Your task to perform on an android device: turn smart compose on in the gmail app Image 0: 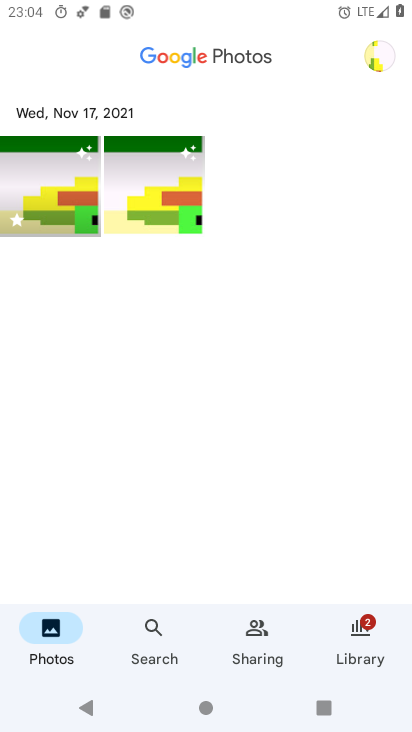
Step 0: drag from (190, 484) to (269, 54)
Your task to perform on an android device: turn smart compose on in the gmail app Image 1: 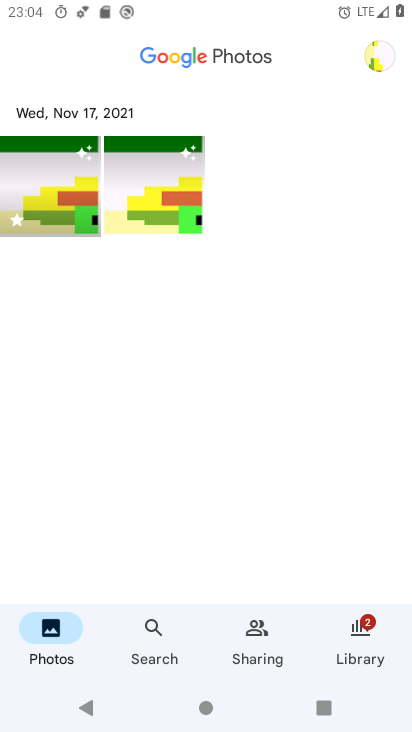
Step 1: drag from (172, 573) to (236, 429)
Your task to perform on an android device: turn smart compose on in the gmail app Image 2: 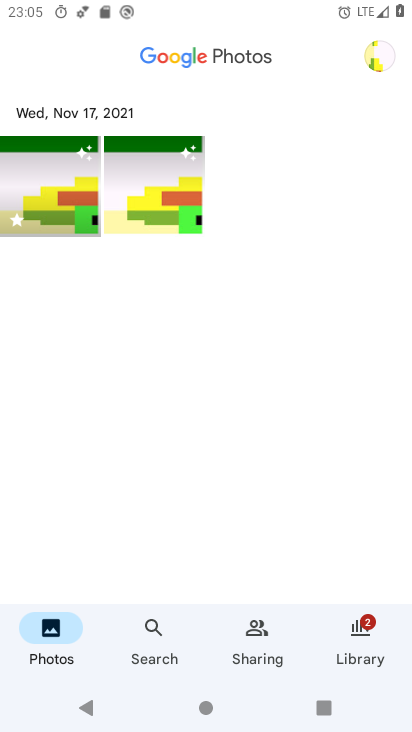
Step 2: drag from (178, 547) to (322, 192)
Your task to perform on an android device: turn smart compose on in the gmail app Image 3: 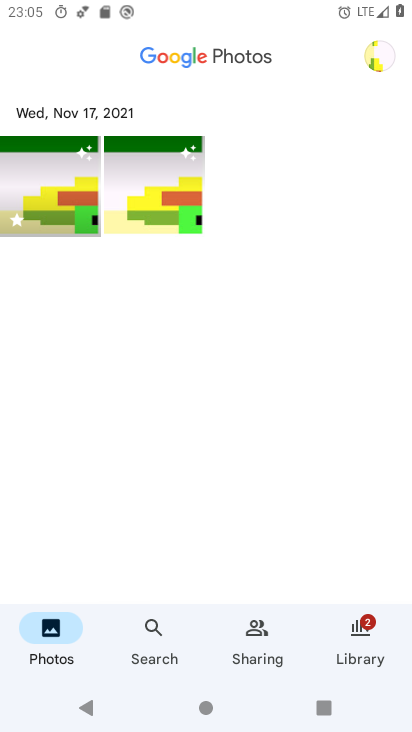
Step 3: drag from (210, 501) to (262, 342)
Your task to perform on an android device: turn smart compose on in the gmail app Image 4: 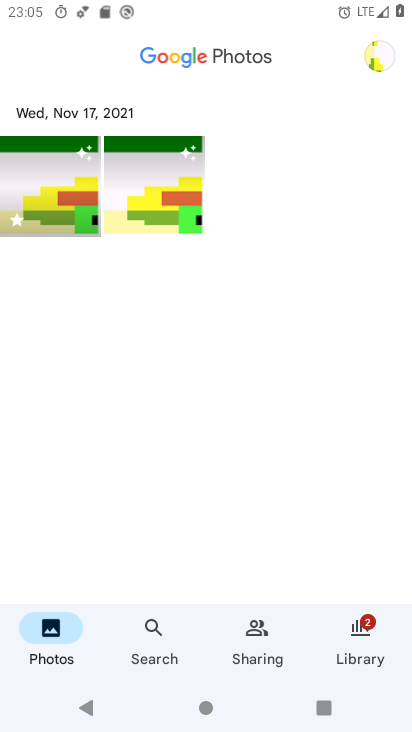
Step 4: drag from (163, 560) to (212, 373)
Your task to perform on an android device: turn smart compose on in the gmail app Image 5: 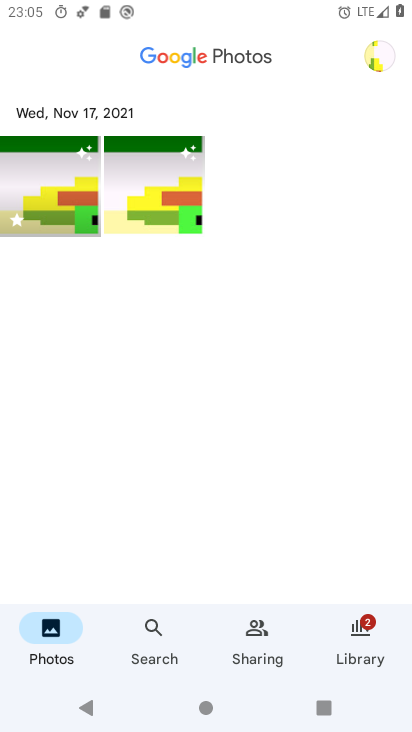
Step 5: drag from (206, 413) to (242, 208)
Your task to perform on an android device: turn smart compose on in the gmail app Image 6: 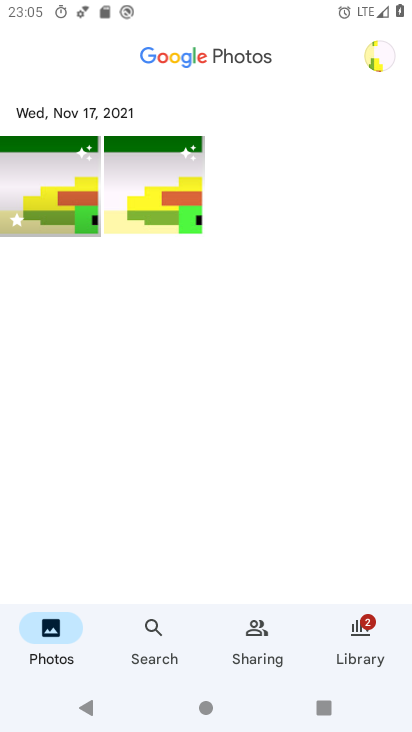
Step 6: drag from (177, 534) to (256, 190)
Your task to perform on an android device: turn smart compose on in the gmail app Image 7: 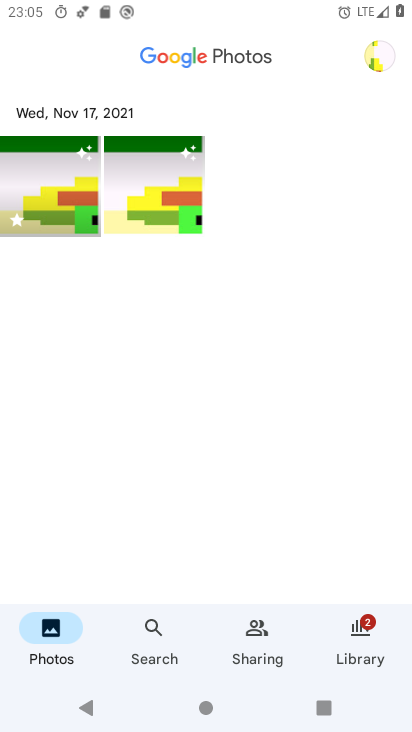
Step 7: drag from (169, 530) to (280, 153)
Your task to perform on an android device: turn smart compose on in the gmail app Image 8: 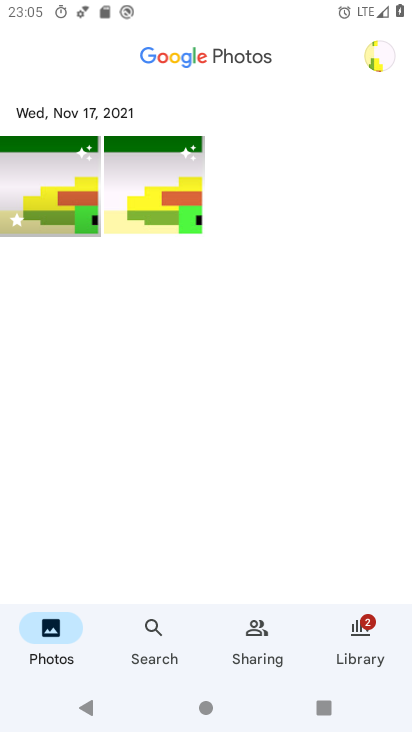
Step 8: drag from (179, 507) to (279, 223)
Your task to perform on an android device: turn smart compose on in the gmail app Image 9: 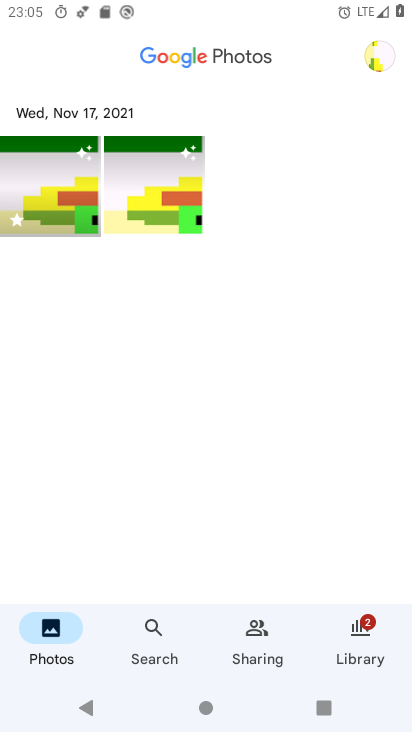
Step 9: drag from (161, 436) to (229, 225)
Your task to perform on an android device: turn smart compose on in the gmail app Image 10: 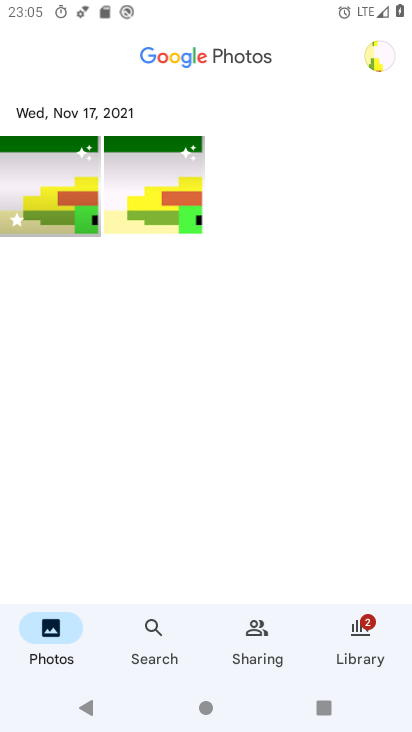
Step 10: press home button
Your task to perform on an android device: turn smart compose on in the gmail app Image 11: 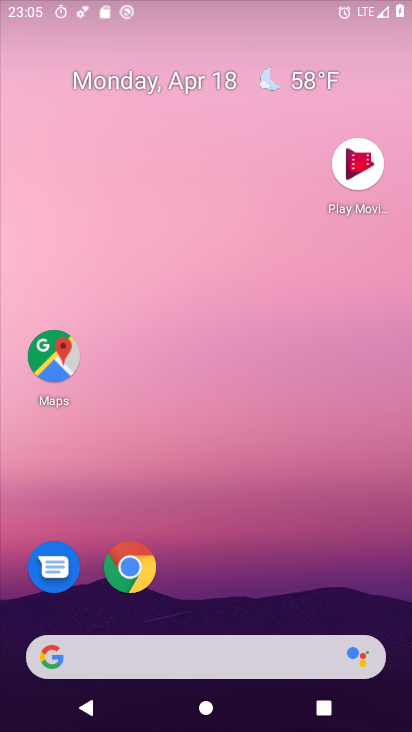
Step 11: drag from (188, 604) to (232, 22)
Your task to perform on an android device: turn smart compose on in the gmail app Image 12: 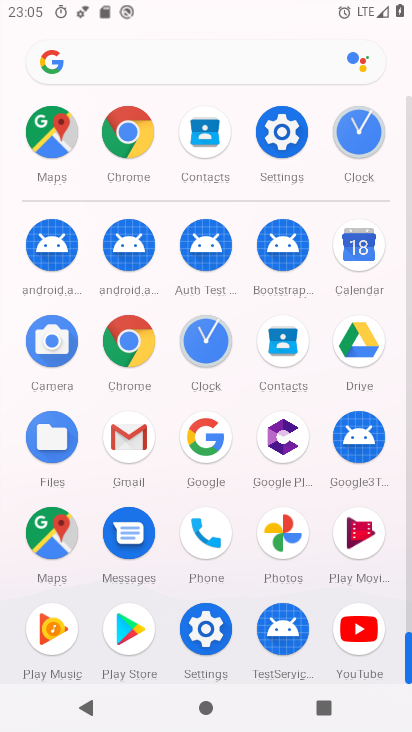
Step 12: click (133, 422)
Your task to perform on an android device: turn smart compose on in the gmail app Image 13: 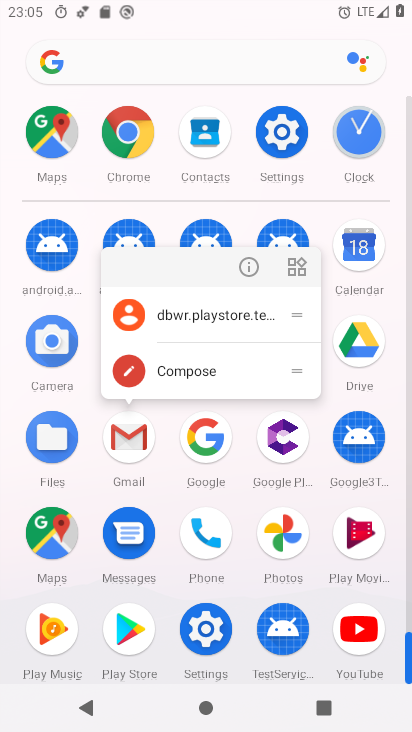
Step 13: click (248, 259)
Your task to perform on an android device: turn smart compose on in the gmail app Image 14: 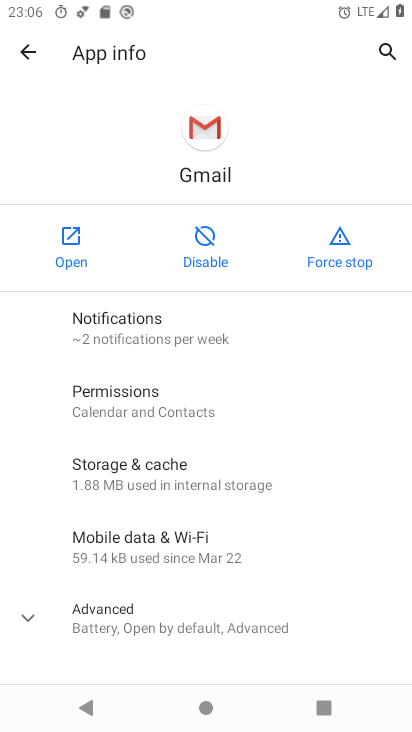
Step 14: click (75, 273)
Your task to perform on an android device: turn smart compose on in the gmail app Image 15: 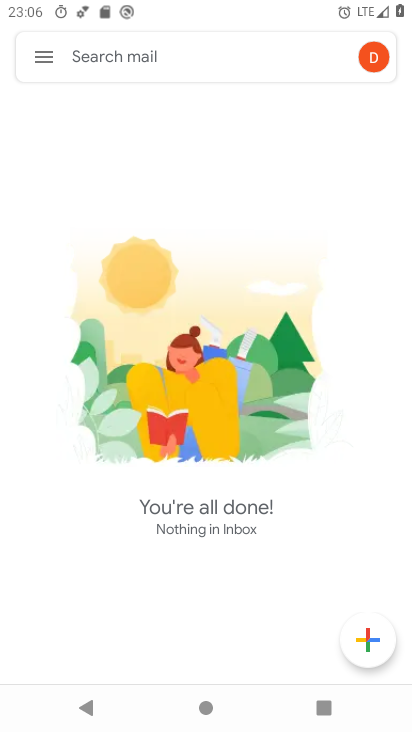
Step 15: click (150, 496)
Your task to perform on an android device: turn smart compose on in the gmail app Image 16: 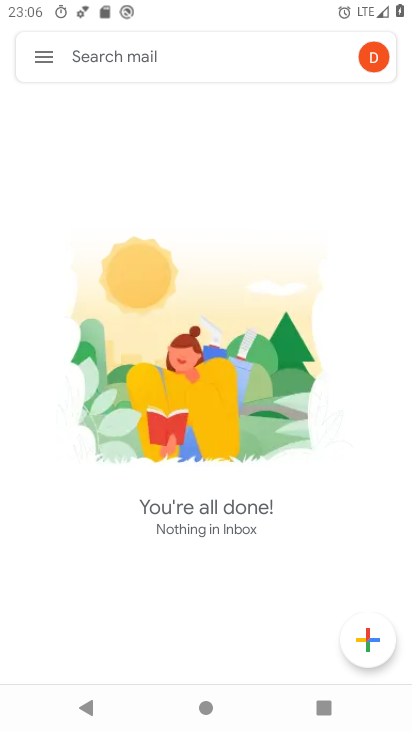
Step 16: click (38, 50)
Your task to perform on an android device: turn smart compose on in the gmail app Image 17: 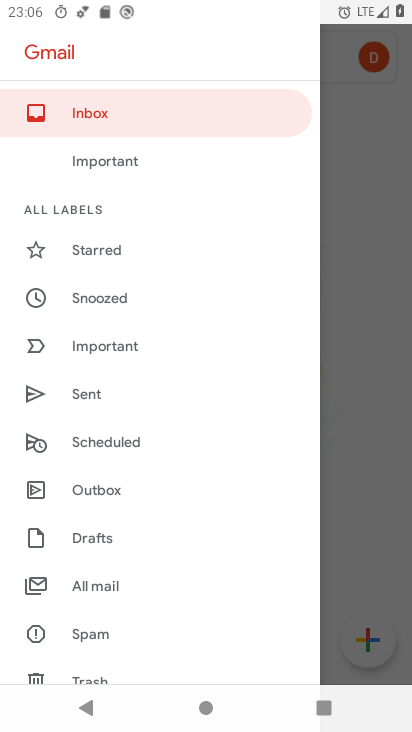
Step 17: drag from (155, 677) to (243, 21)
Your task to perform on an android device: turn smart compose on in the gmail app Image 18: 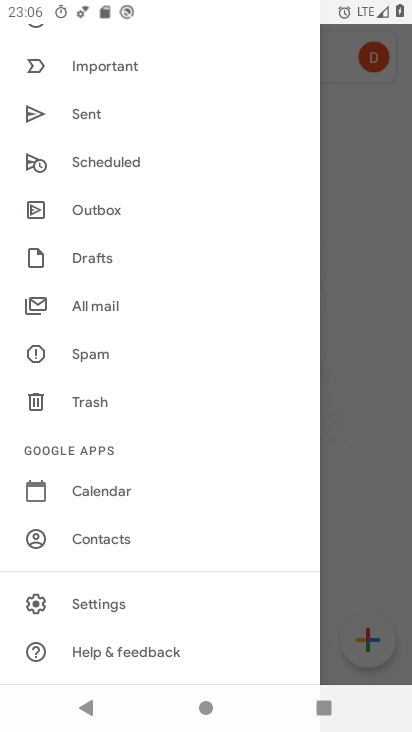
Step 18: click (140, 604)
Your task to perform on an android device: turn smart compose on in the gmail app Image 19: 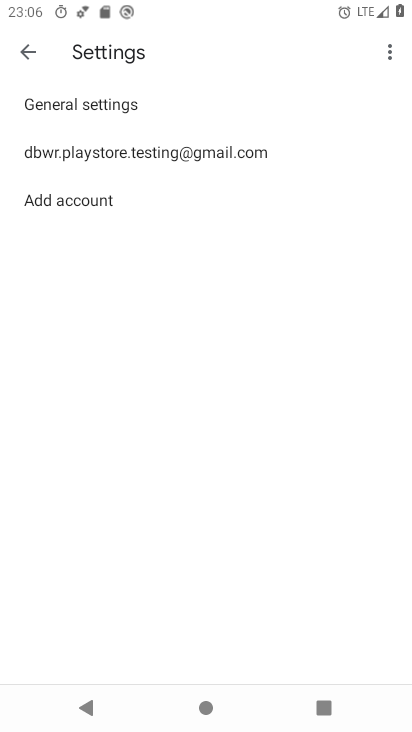
Step 19: click (171, 153)
Your task to perform on an android device: turn smart compose on in the gmail app Image 20: 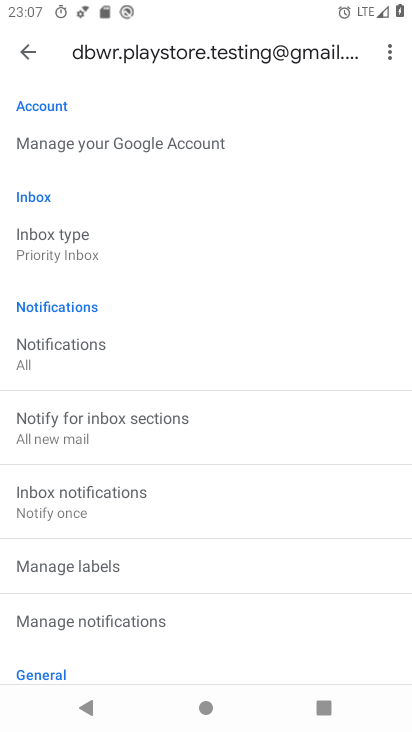
Step 20: drag from (179, 606) to (315, 86)
Your task to perform on an android device: turn smart compose on in the gmail app Image 21: 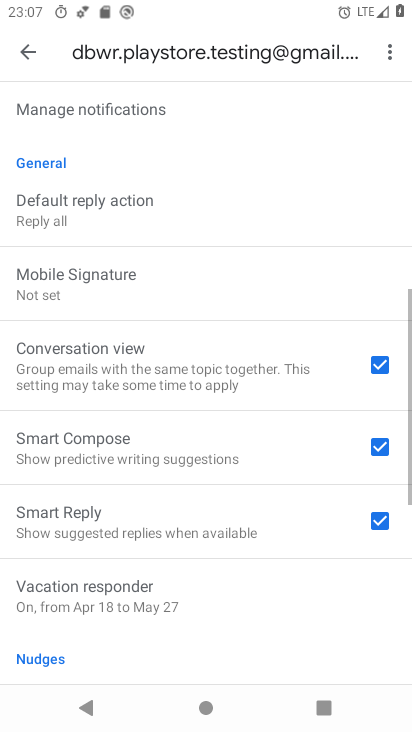
Step 21: drag from (127, 594) to (253, 206)
Your task to perform on an android device: turn smart compose on in the gmail app Image 22: 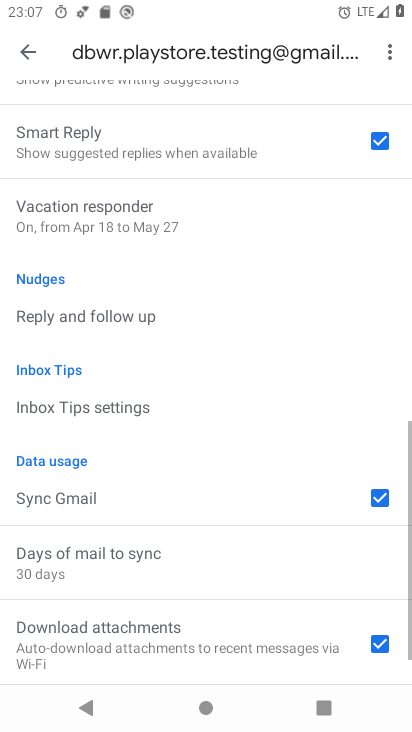
Step 22: drag from (106, 501) to (209, 260)
Your task to perform on an android device: turn smart compose on in the gmail app Image 23: 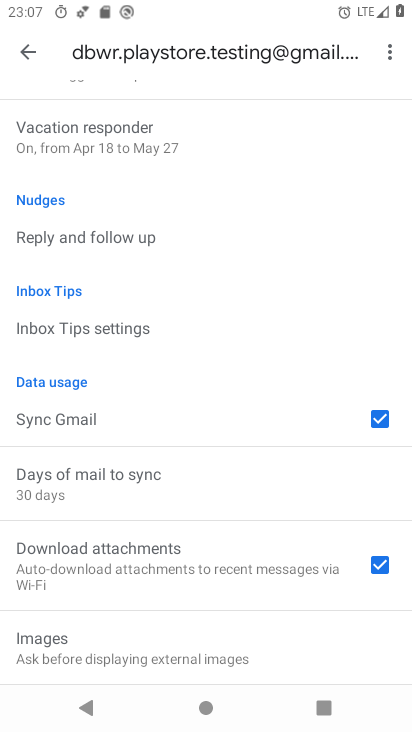
Step 23: drag from (235, 249) to (291, 717)
Your task to perform on an android device: turn smart compose on in the gmail app Image 24: 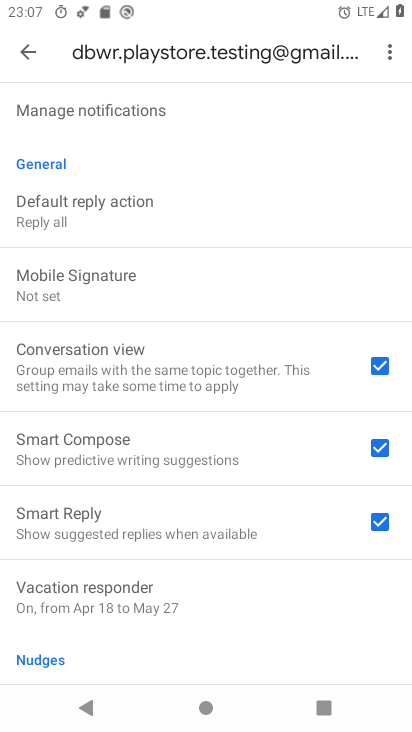
Step 24: click (259, 452)
Your task to perform on an android device: turn smart compose on in the gmail app Image 25: 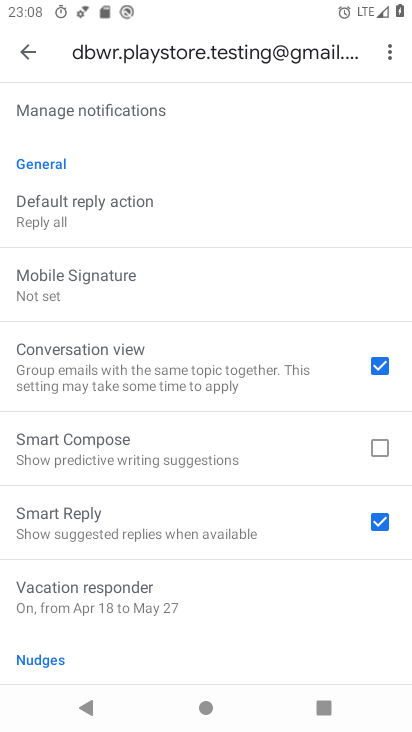
Step 25: task complete